Your task to perform on an android device: refresh tabs in the chrome app Image 0: 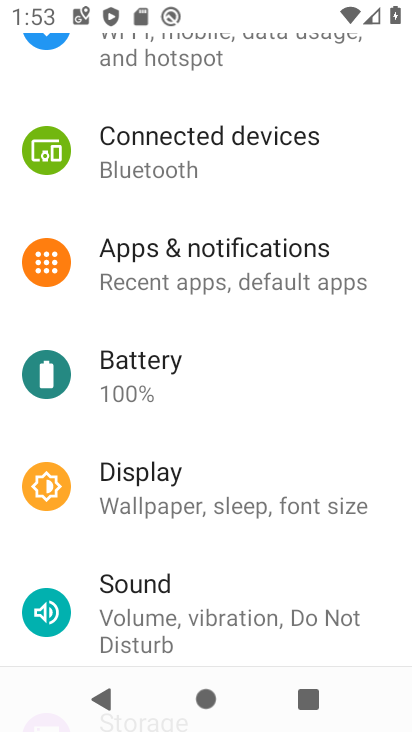
Step 0: press home button
Your task to perform on an android device: refresh tabs in the chrome app Image 1: 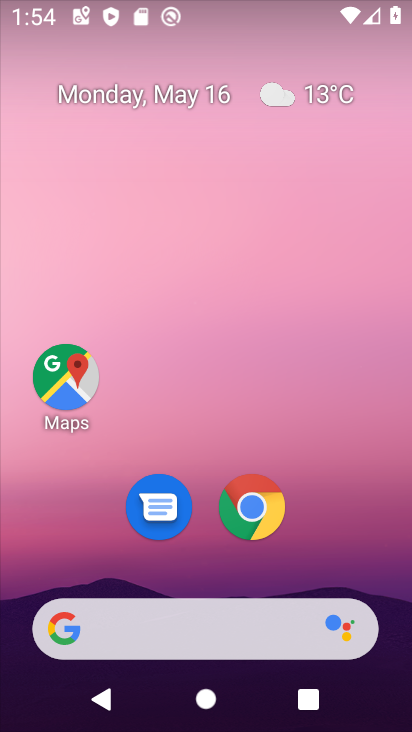
Step 1: drag from (391, 535) to (395, 381)
Your task to perform on an android device: refresh tabs in the chrome app Image 2: 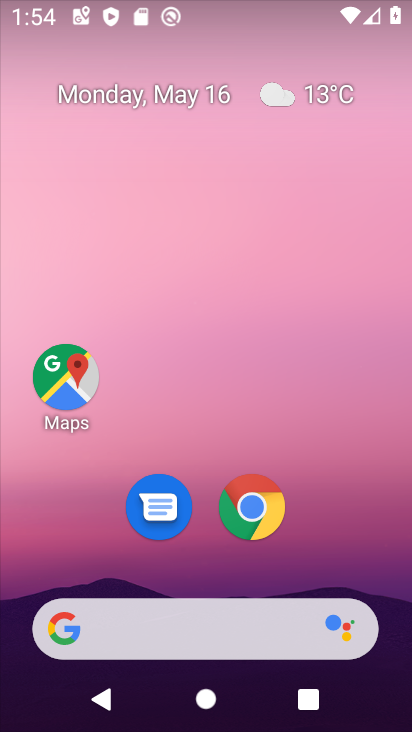
Step 2: click (263, 232)
Your task to perform on an android device: refresh tabs in the chrome app Image 3: 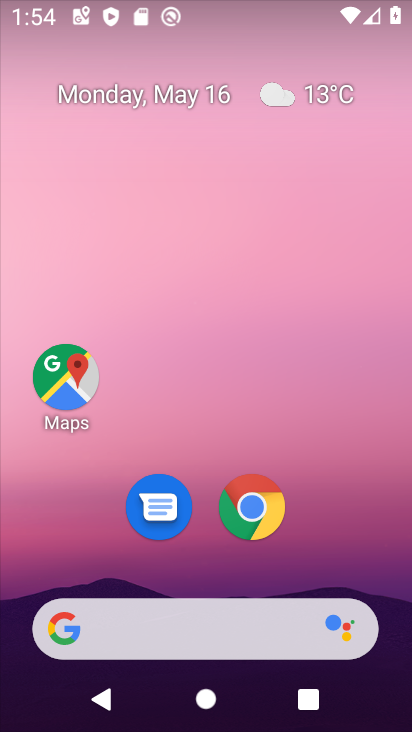
Step 3: drag from (342, 525) to (362, 75)
Your task to perform on an android device: refresh tabs in the chrome app Image 4: 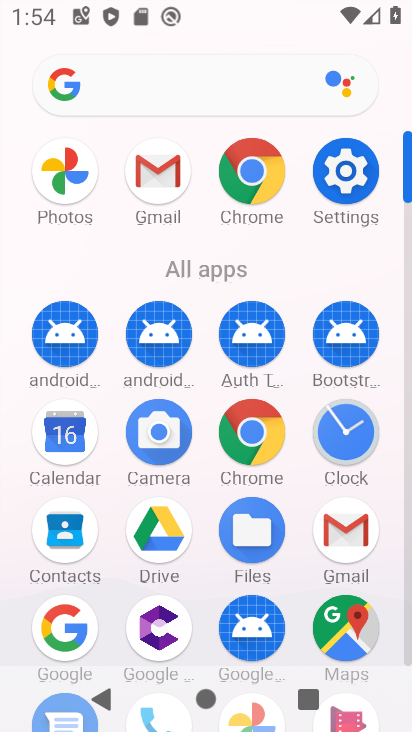
Step 4: click (254, 184)
Your task to perform on an android device: refresh tabs in the chrome app Image 5: 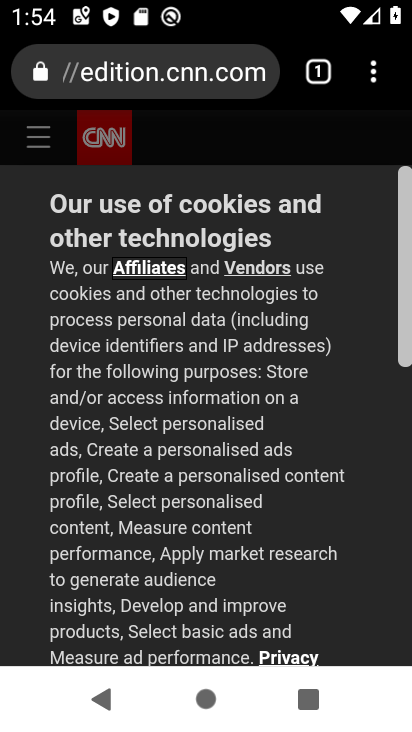
Step 5: click (372, 79)
Your task to perform on an android device: refresh tabs in the chrome app Image 6: 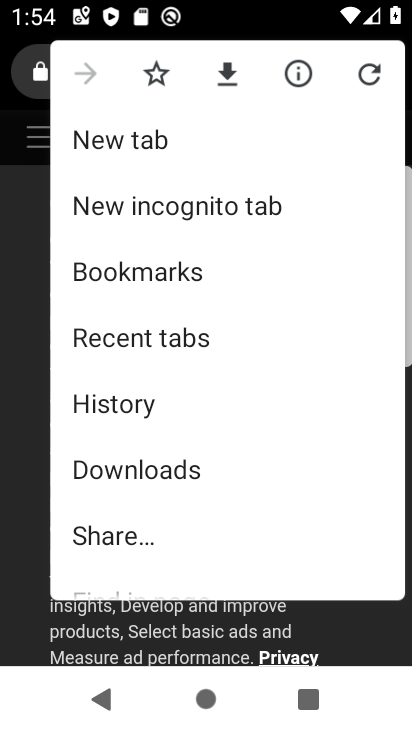
Step 6: click (372, 76)
Your task to perform on an android device: refresh tabs in the chrome app Image 7: 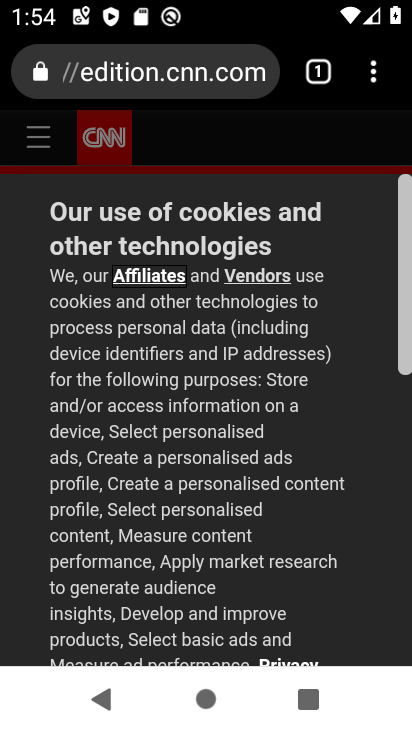
Step 7: task complete